Your task to perform on an android device: check out phone information Image 0: 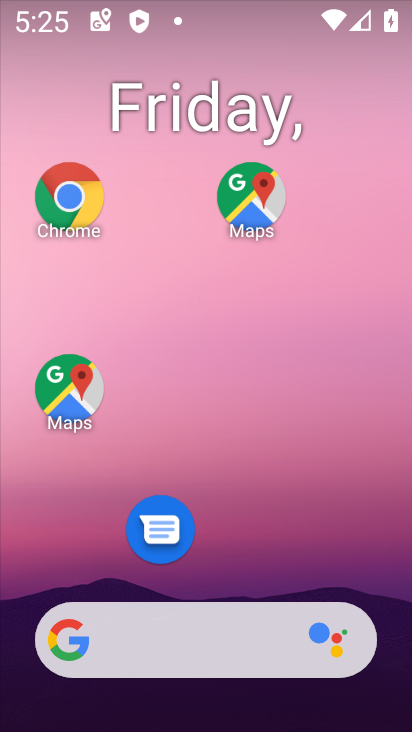
Step 0: drag from (273, 577) to (271, 9)
Your task to perform on an android device: check out phone information Image 1: 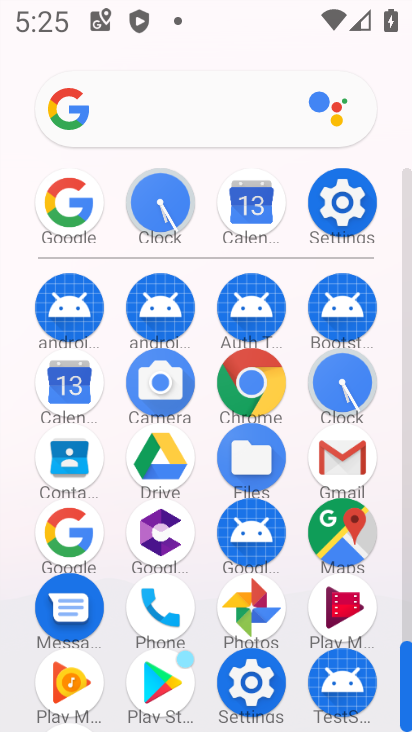
Step 1: click (344, 203)
Your task to perform on an android device: check out phone information Image 2: 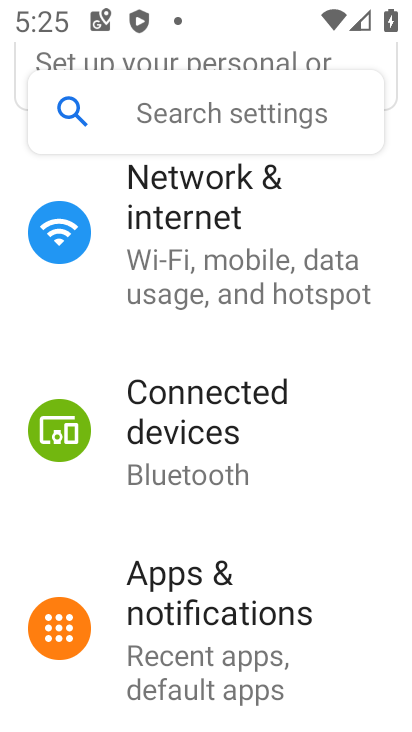
Step 2: drag from (242, 682) to (301, 228)
Your task to perform on an android device: check out phone information Image 3: 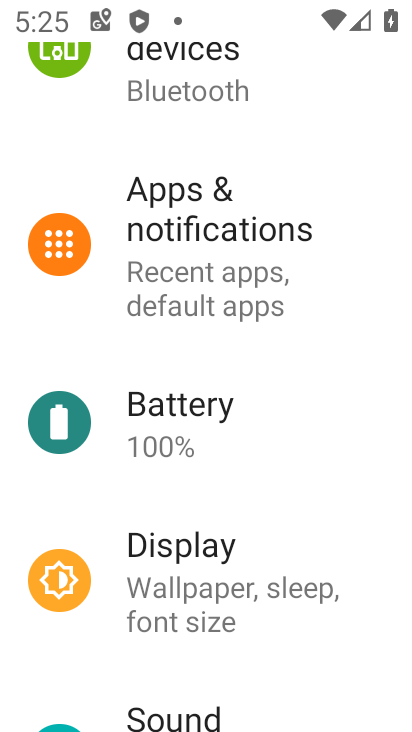
Step 3: drag from (253, 593) to (295, 215)
Your task to perform on an android device: check out phone information Image 4: 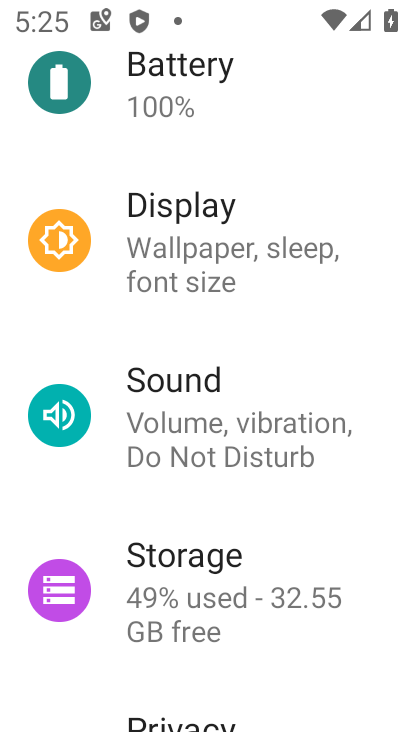
Step 4: drag from (242, 678) to (291, 206)
Your task to perform on an android device: check out phone information Image 5: 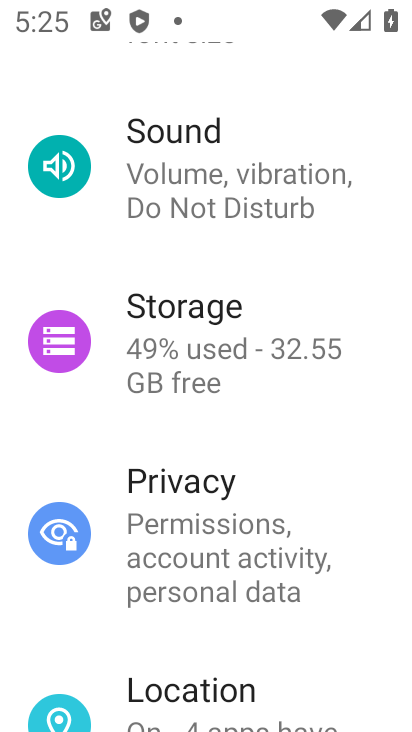
Step 5: drag from (235, 630) to (314, 162)
Your task to perform on an android device: check out phone information Image 6: 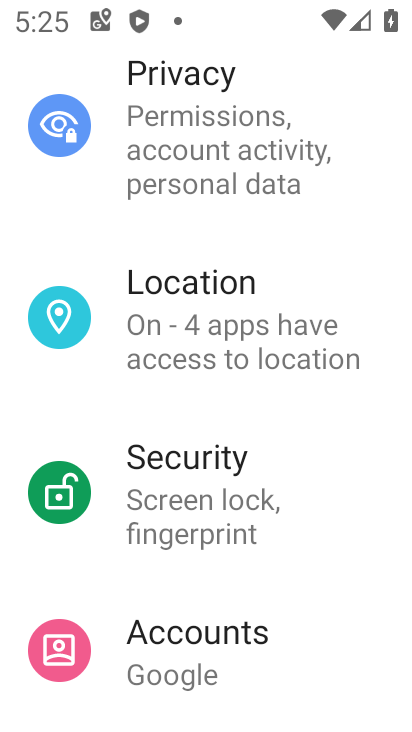
Step 6: click (255, 167)
Your task to perform on an android device: check out phone information Image 7: 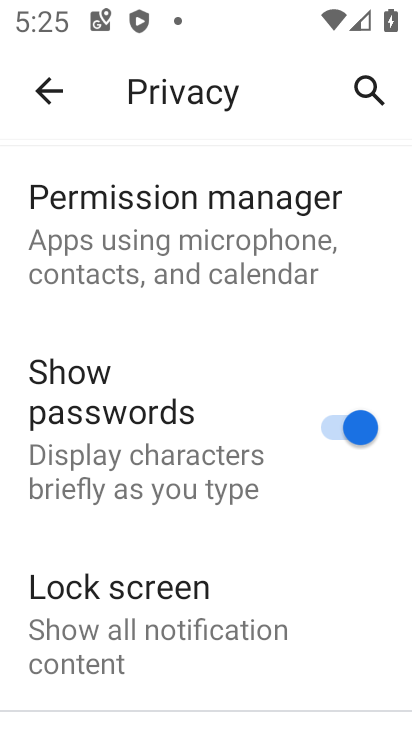
Step 7: click (49, 100)
Your task to perform on an android device: check out phone information Image 8: 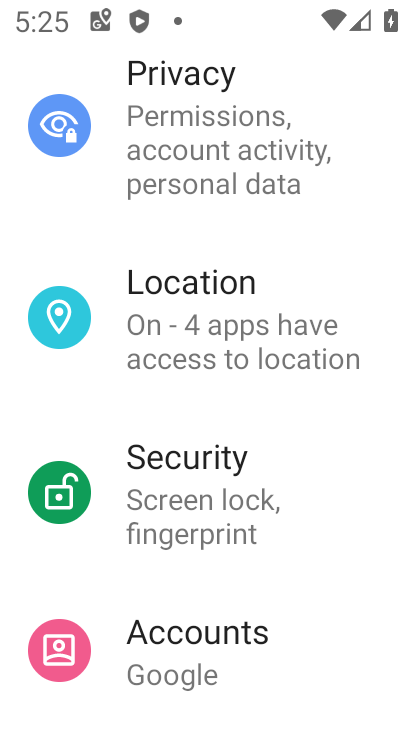
Step 8: drag from (254, 565) to (297, 245)
Your task to perform on an android device: check out phone information Image 9: 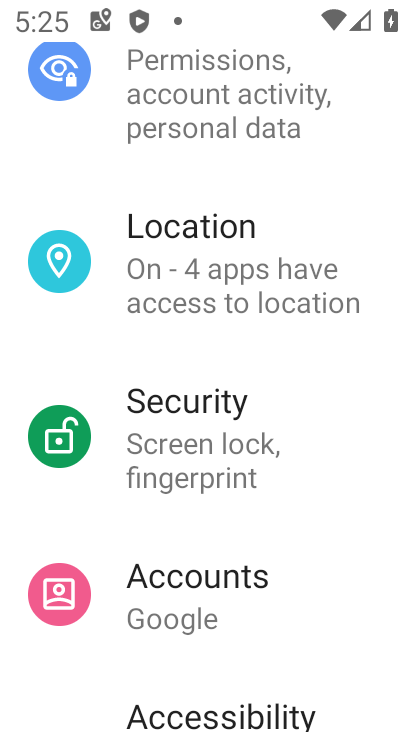
Step 9: drag from (236, 651) to (245, 190)
Your task to perform on an android device: check out phone information Image 10: 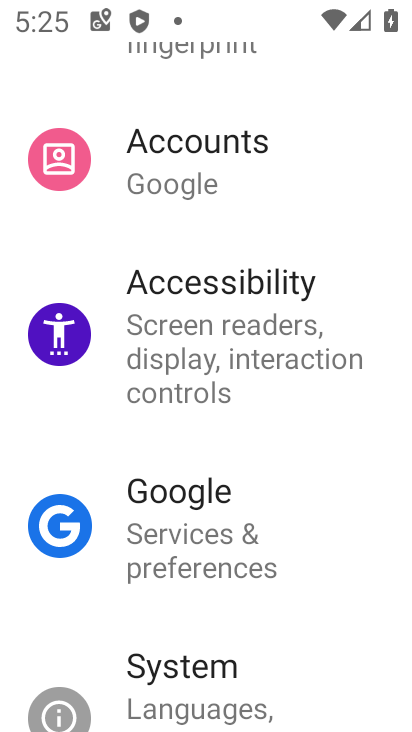
Step 10: click (246, 186)
Your task to perform on an android device: check out phone information Image 11: 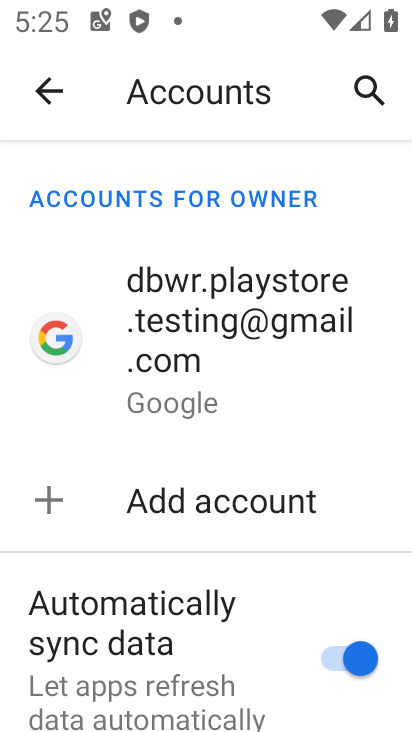
Step 11: click (43, 95)
Your task to perform on an android device: check out phone information Image 12: 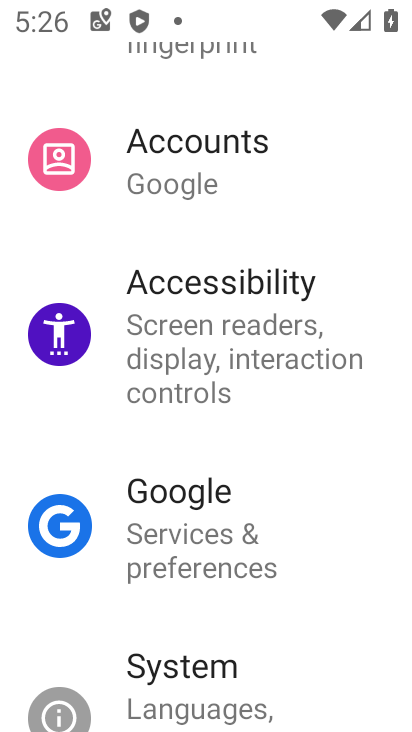
Step 12: drag from (212, 641) to (297, 271)
Your task to perform on an android device: check out phone information Image 13: 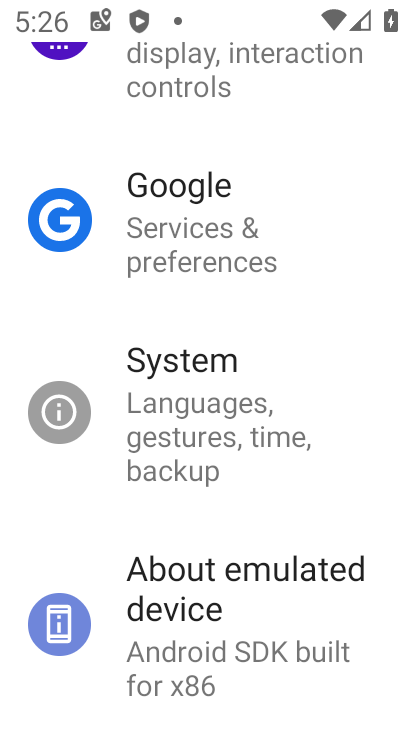
Step 13: click (198, 633)
Your task to perform on an android device: check out phone information Image 14: 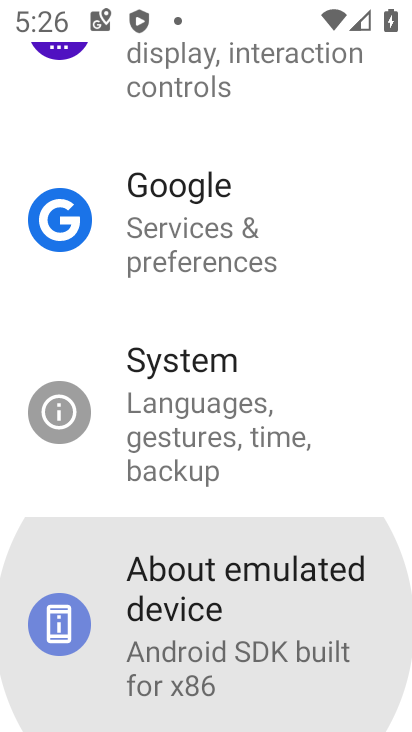
Step 14: click (220, 608)
Your task to perform on an android device: check out phone information Image 15: 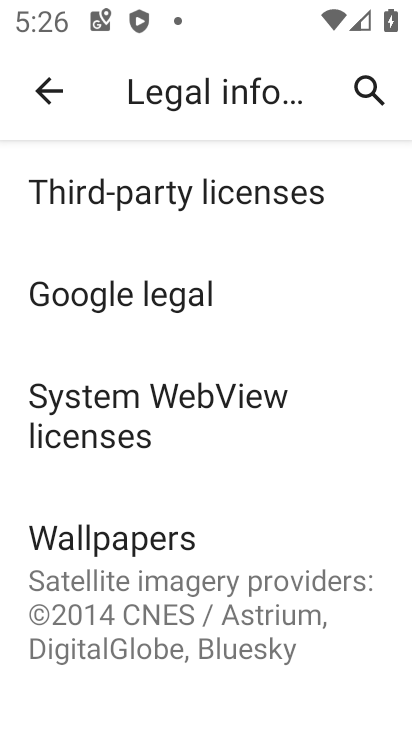
Step 15: drag from (151, 633) to (253, 206)
Your task to perform on an android device: check out phone information Image 16: 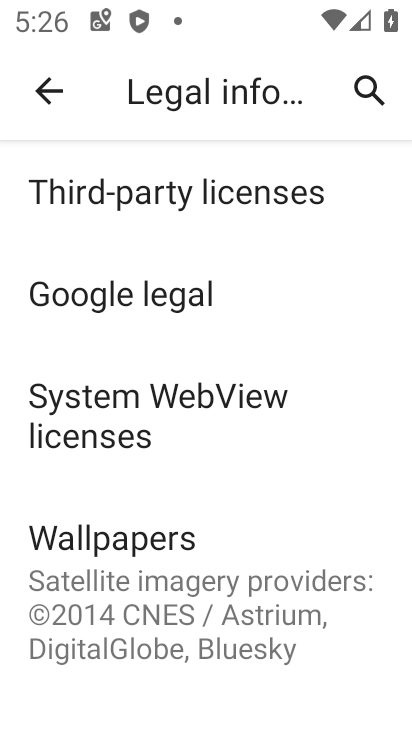
Step 16: click (53, 97)
Your task to perform on an android device: check out phone information Image 17: 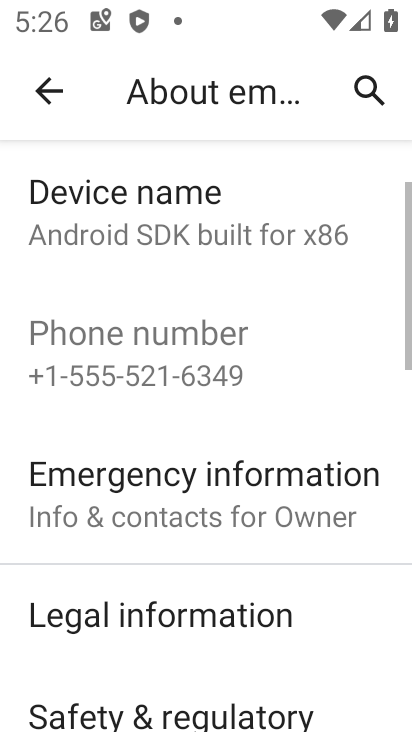
Step 17: task complete